Your task to perform on an android device: turn off location history Image 0: 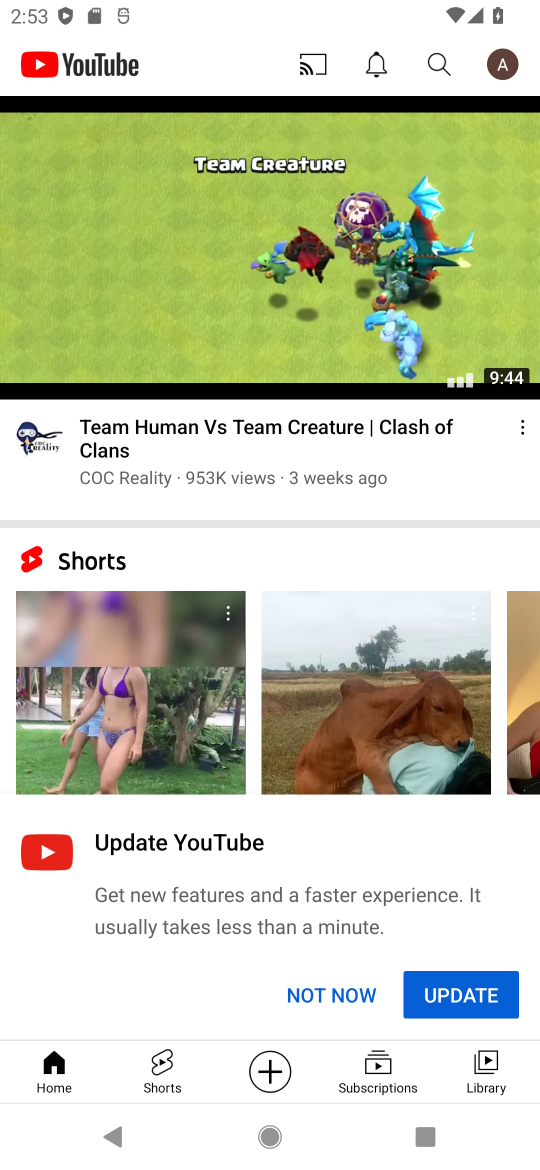
Step 0: press back button
Your task to perform on an android device: turn off location history Image 1: 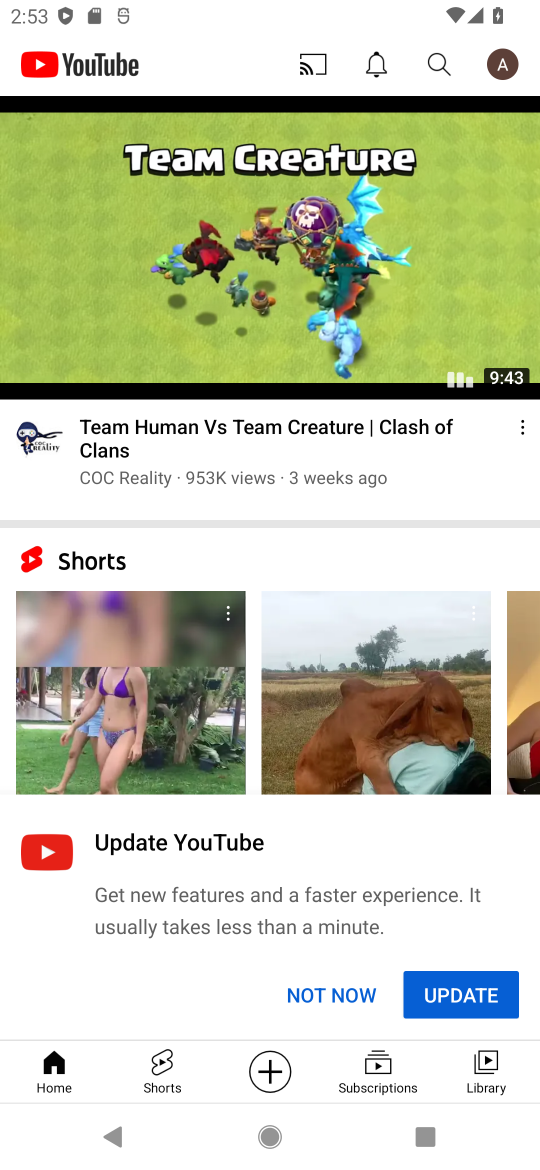
Step 1: press back button
Your task to perform on an android device: turn off location history Image 2: 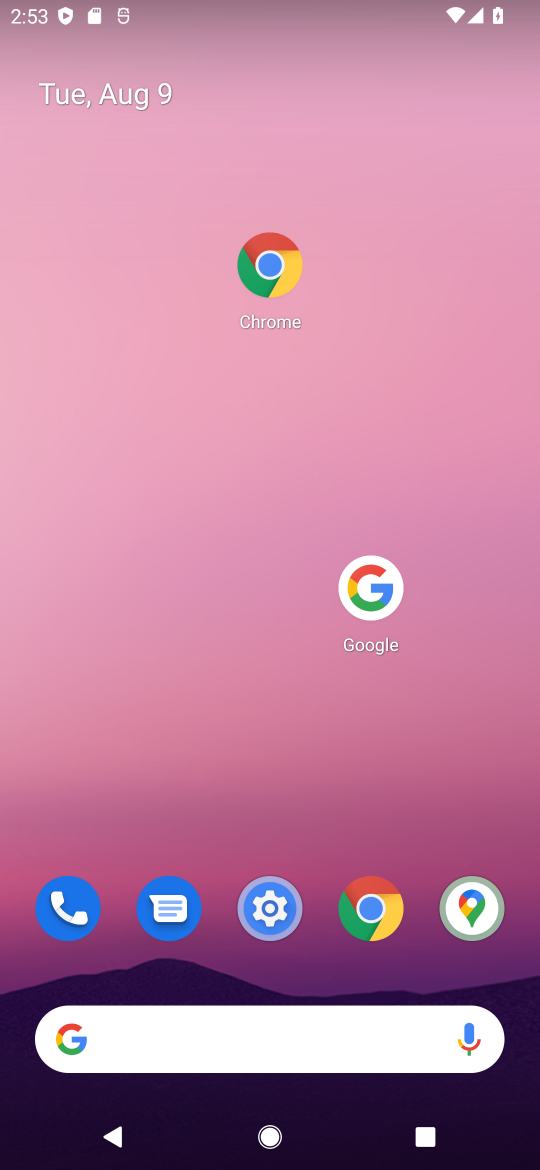
Step 2: press back button
Your task to perform on an android device: turn off location history Image 3: 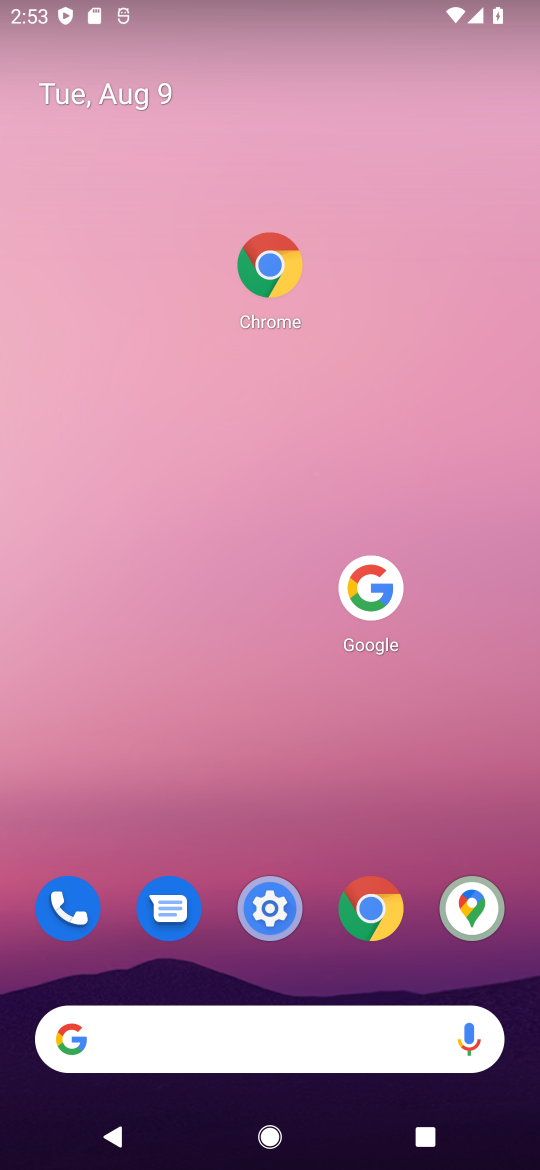
Step 3: drag from (285, 1025) to (152, 170)
Your task to perform on an android device: turn off location history Image 4: 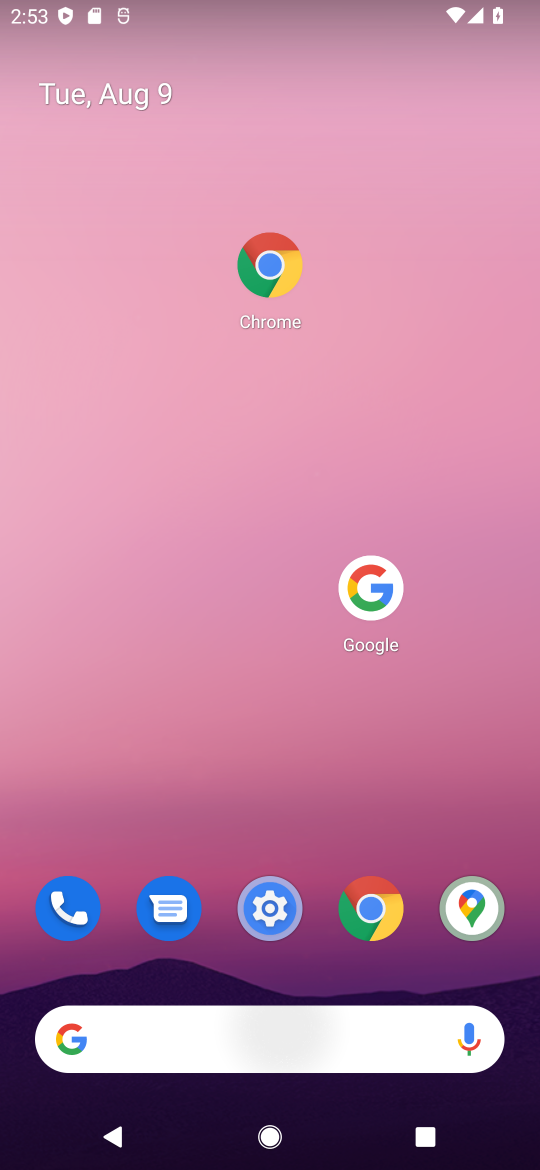
Step 4: click (325, 294)
Your task to perform on an android device: turn off location history Image 5: 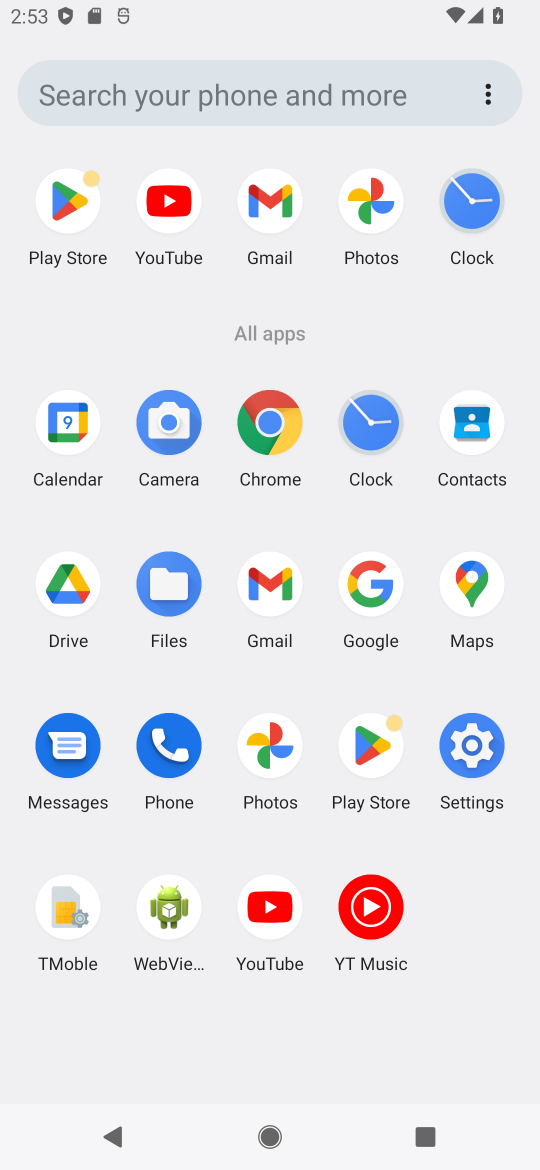
Step 5: click (473, 745)
Your task to perform on an android device: turn off location history Image 6: 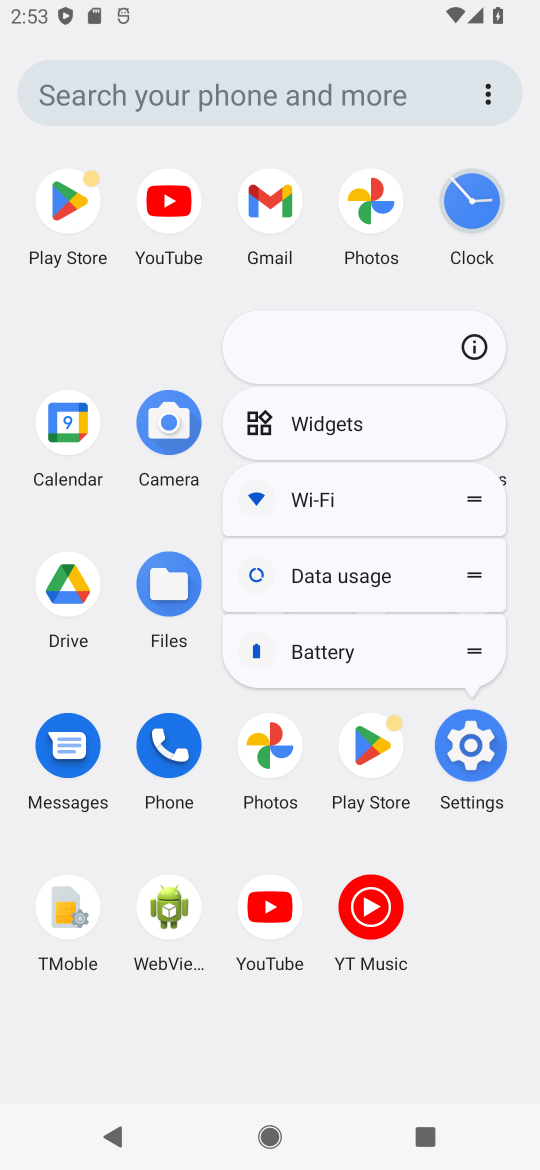
Step 6: click (472, 745)
Your task to perform on an android device: turn off location history Image 7: 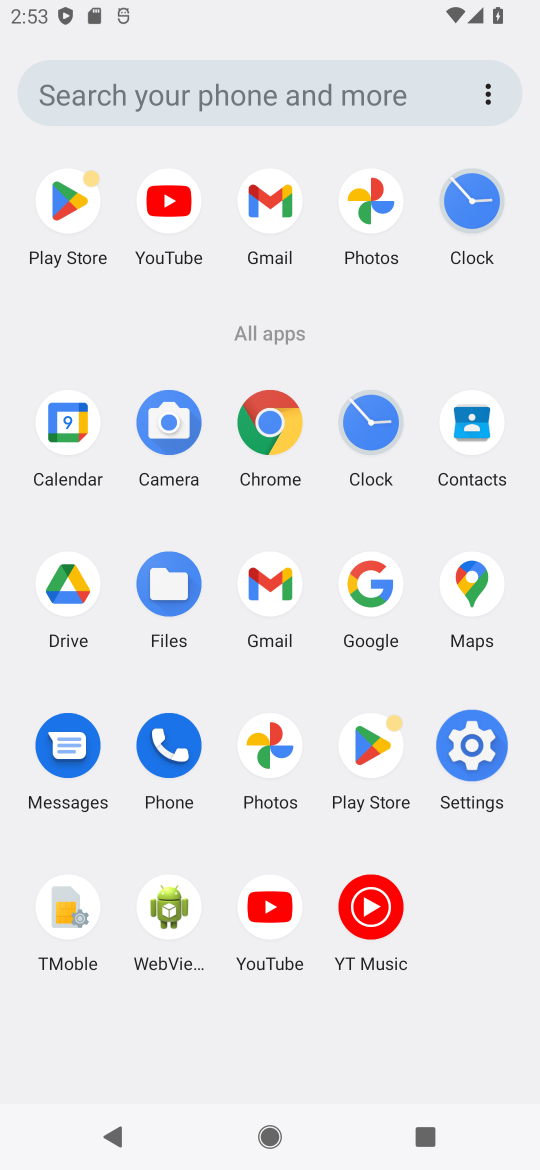
Step 7: click (472, 745)
Your task to perform on an android device: turn off location history Image 8: 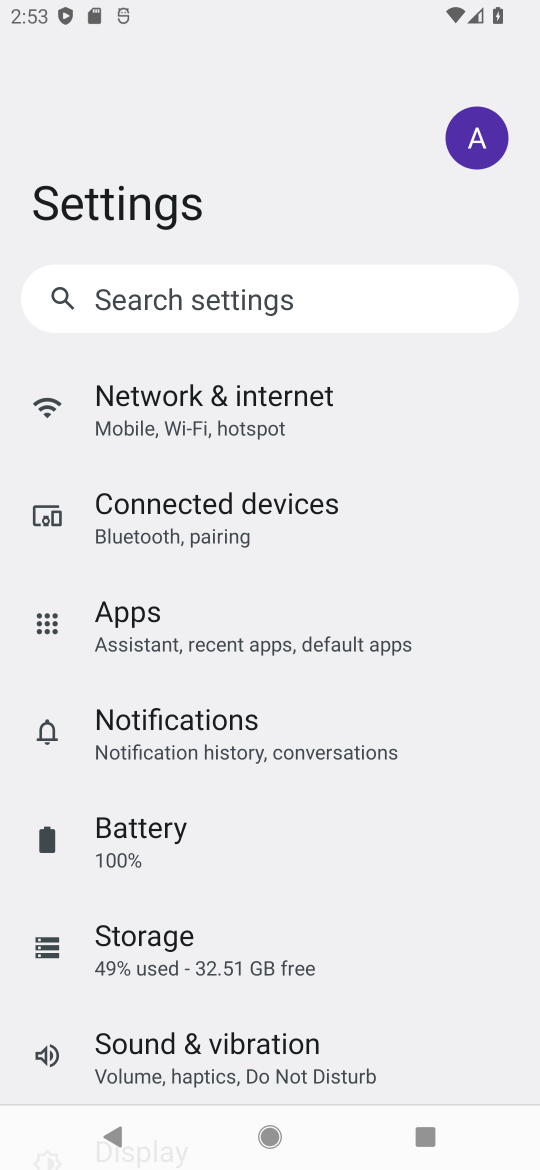
Step 8: drag from (205, 916) to (212, 543)
Your task to perform on an android device: turn off location history Image 9: 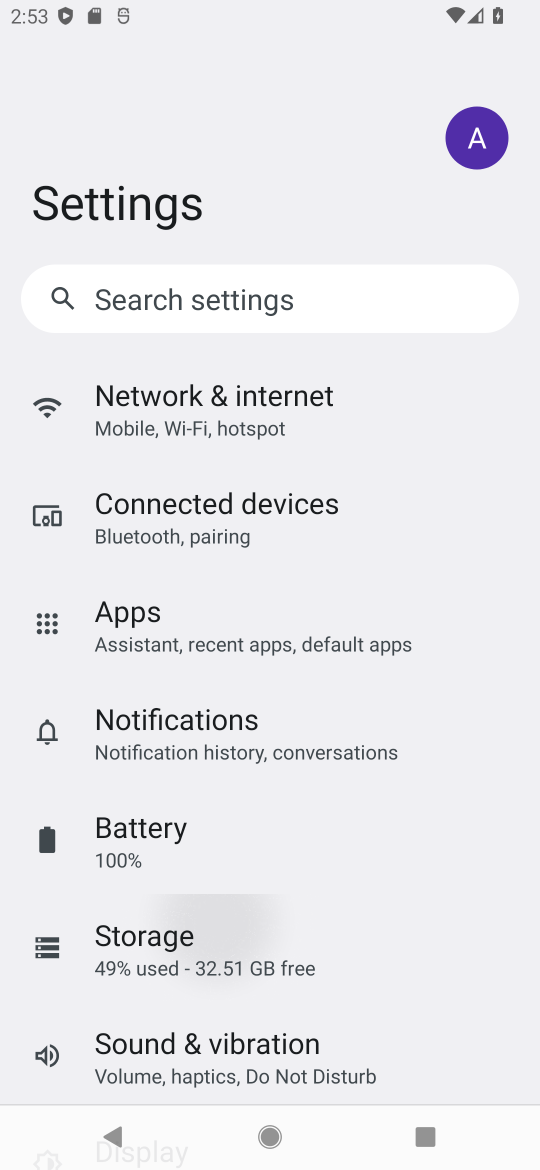
Step 9: drag from (199, 813) to (199, 539)
Your task to perform on an android device: turn off location history Image 10: 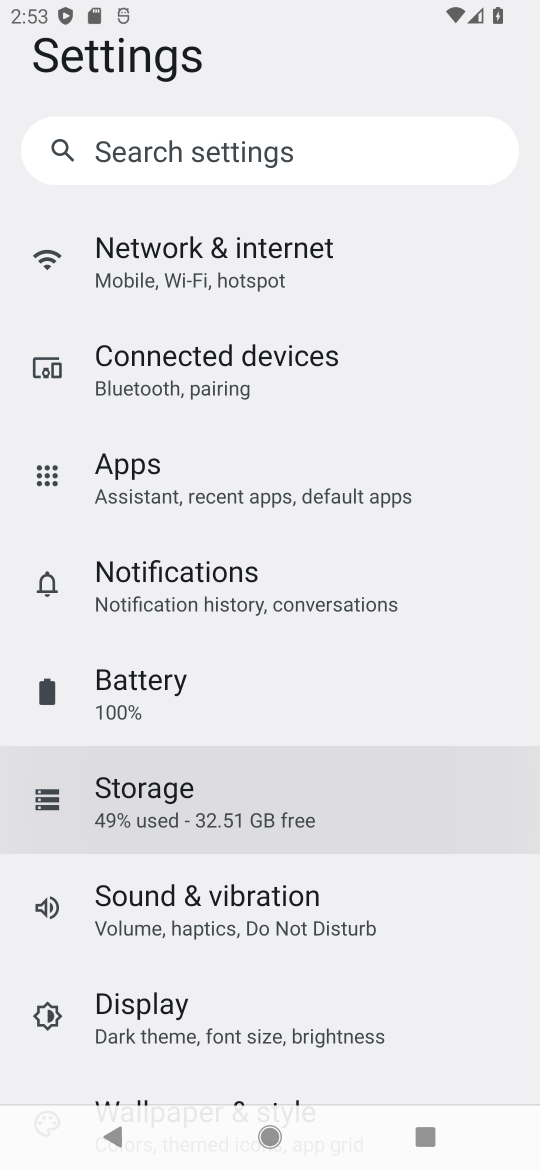
Step 10: drag from (202, 886) to (212, 422)
Your task to perform on an android device: turn off location history Image 11: 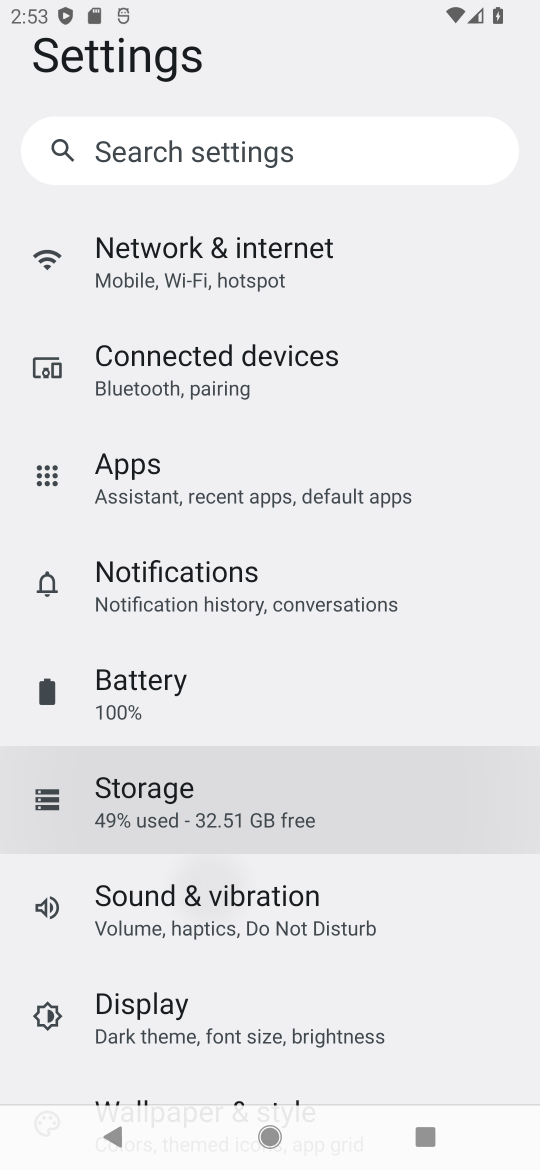
Step 11: drag from (262, 775) to (349, 221)
Your task to perform on an android device: turn off location history Image 12: 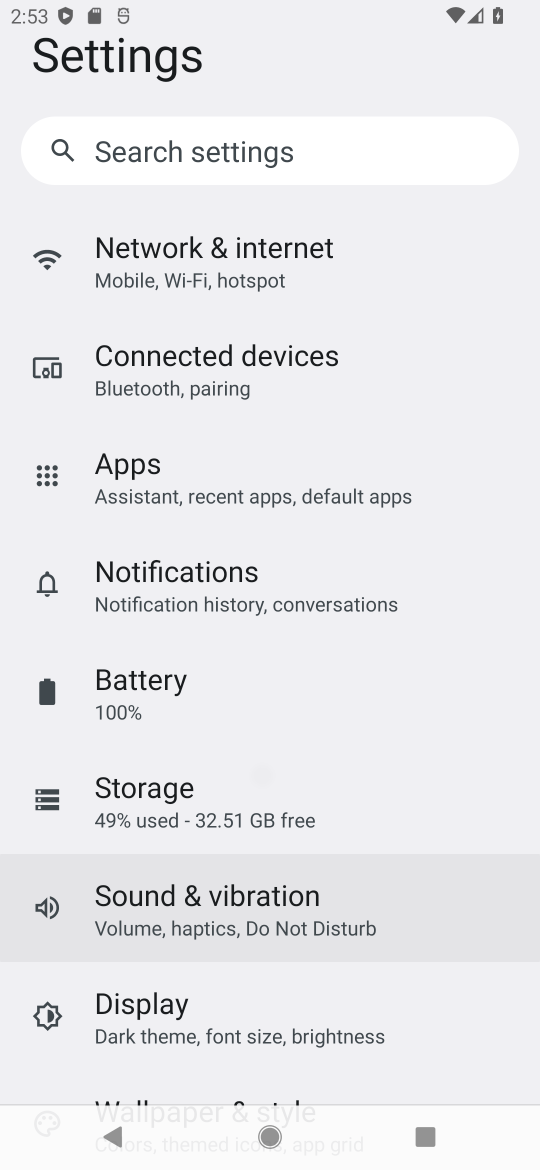
Step 12: drag from (282, 762) to (278, 446)
Your task to perform on an android device: turn off location history Image 13: 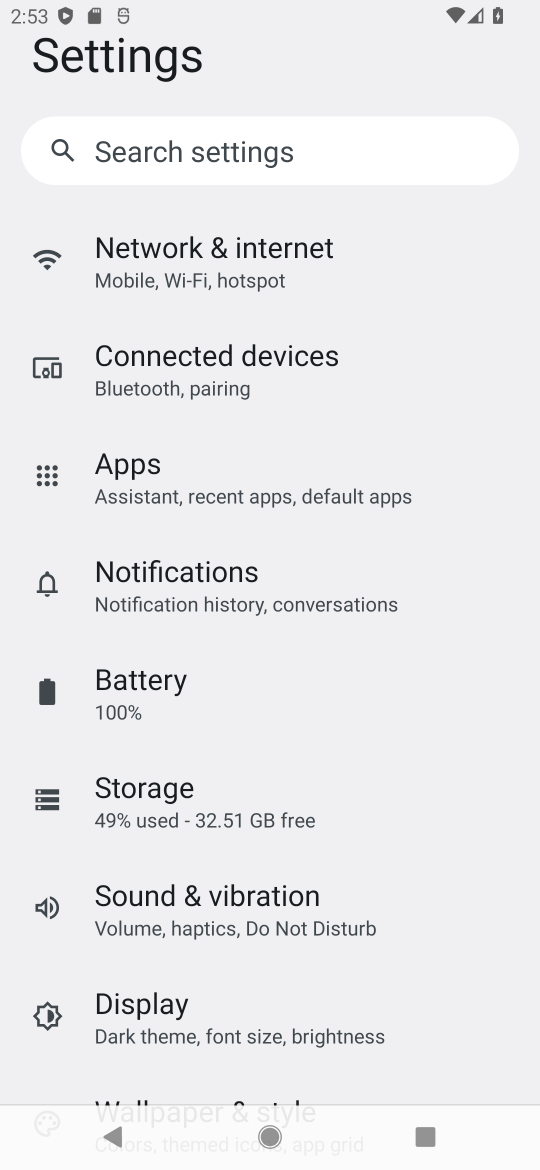
Step 13: drag from (198, 884) to (191, 534)
Your task to perform on an android device: turn off location history Image 14: 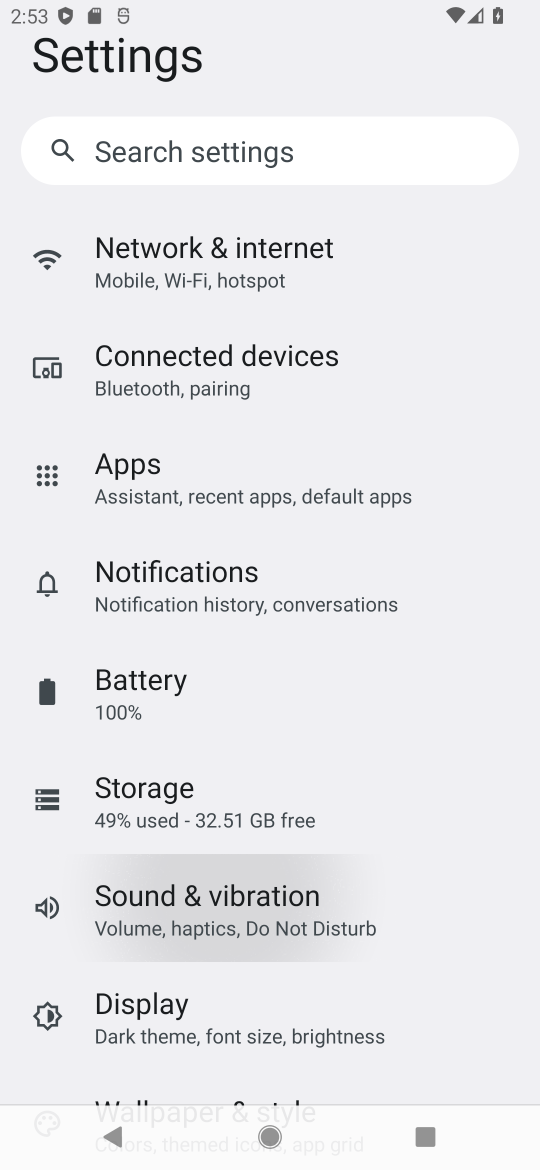
Step 14: click (265, 529)
Your task to perform on an android device: turn off location history Image 15: 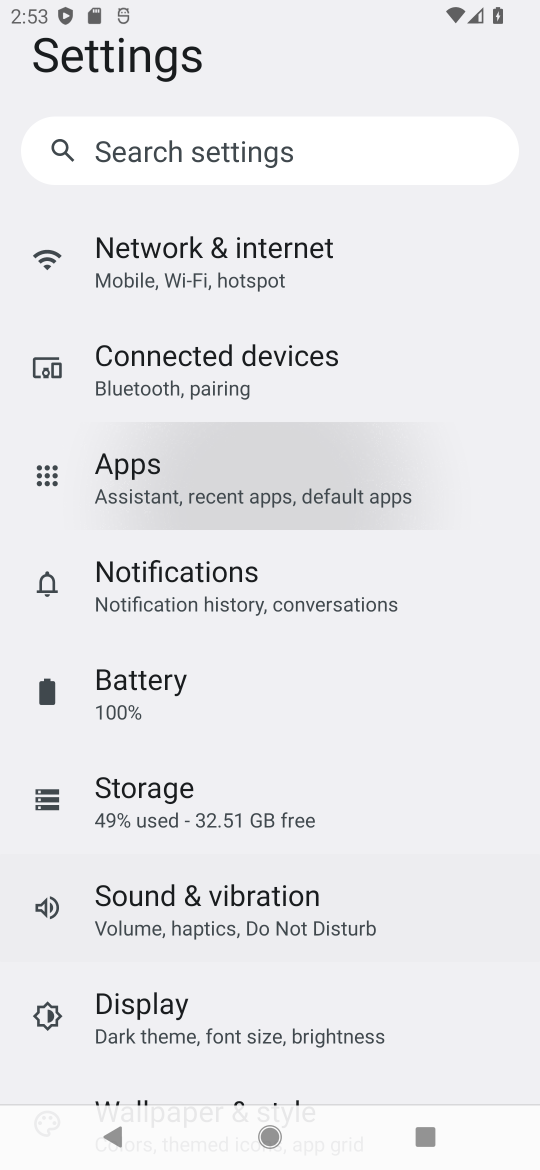
Step 15: drag from (276, 747) to (210, 306)
Your task to perform on an android device: turn off location history Image 16: 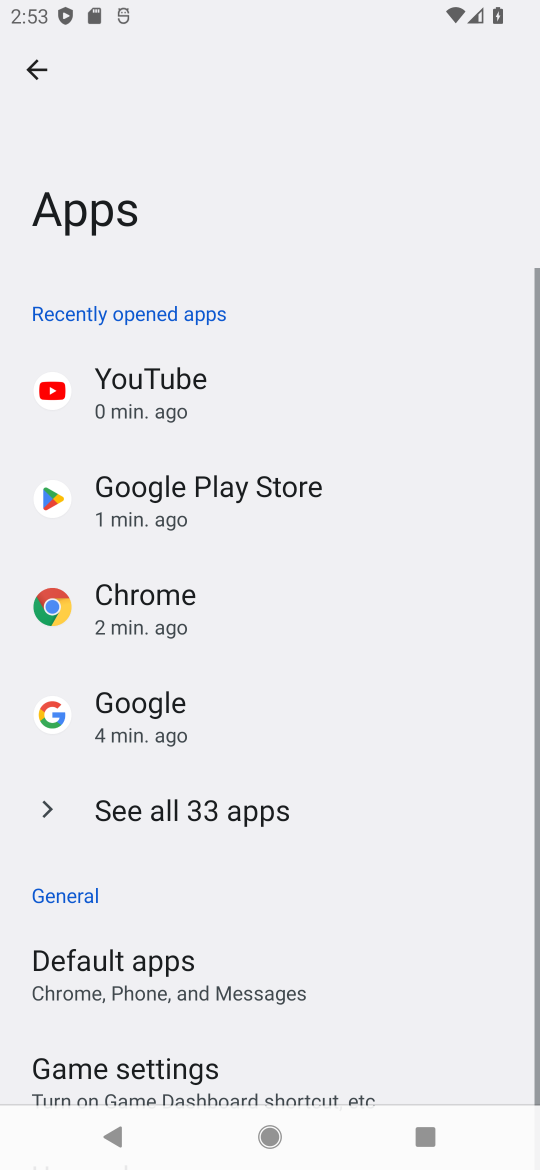
Step 16: click (36, 71)
Your task to perform on an android device: turn off location history Image 17: 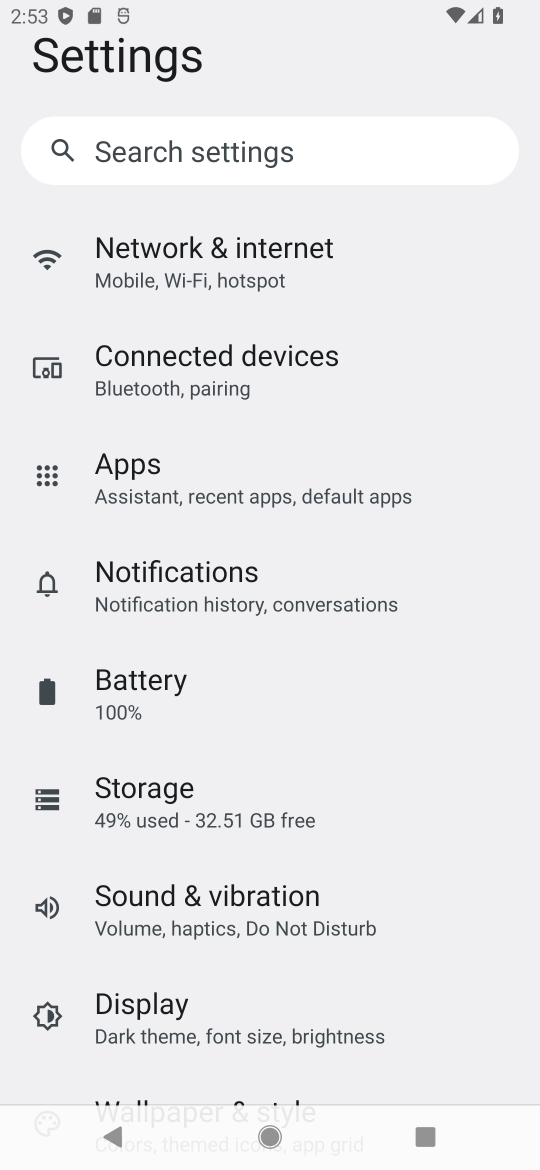
Step 17: drag from (181, 663) to (143, 168)
Your task to perform on an android device: turn off location history Image 18: 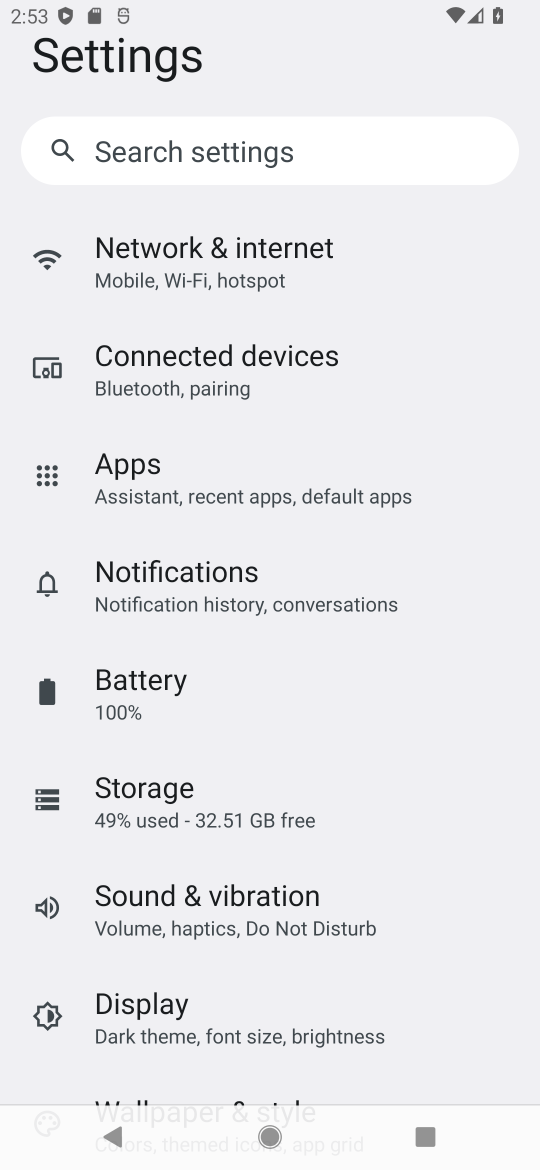
Step 18: drag from (177, 806) to (192, 281)
Your task to perform on an android device: turn off location history Image 19: 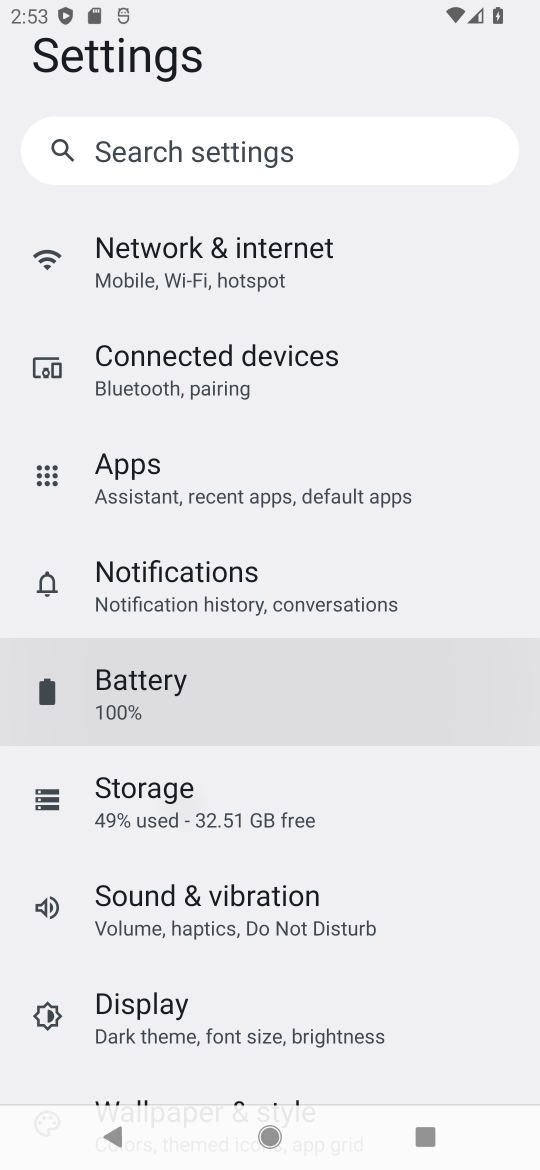
Step 19: drag from (288, 830) to (280, 373)
Your task to perform on an android device: turn off location history Image 20: 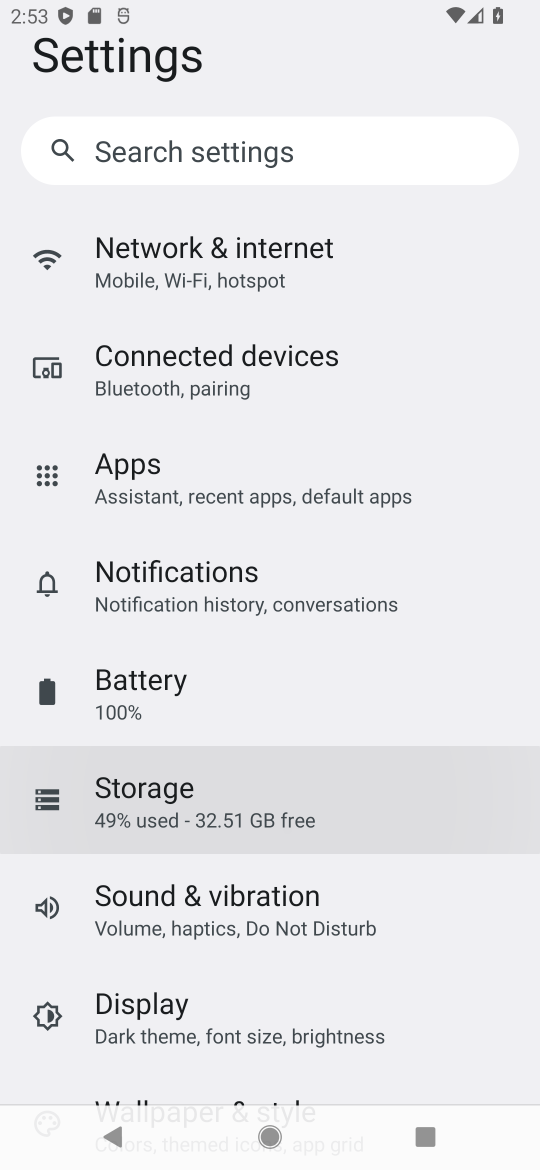
Step 20: drag from (237, 930) to (200, 465)
Your task to perform on an android device: turn off location history Image 21: 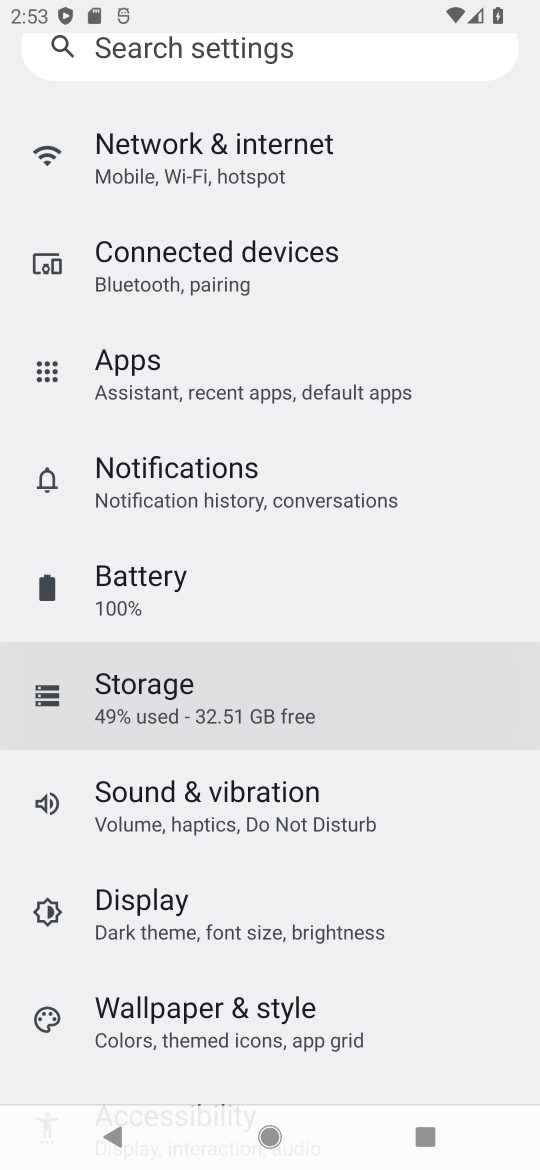
Step 21: drag from (217, 897) to (229, 258)
Your task to perform on an android device: turn off location history Image 22: 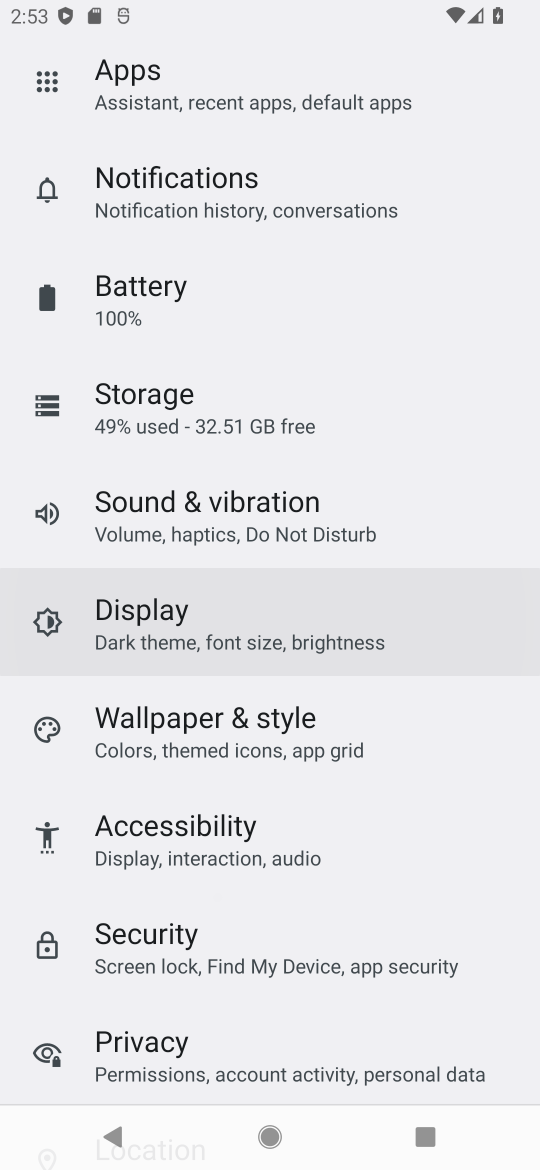
Step 22: drag from (206, 916) to (156, 548)
Your task to perform on an android device: turn off location history Image 23: 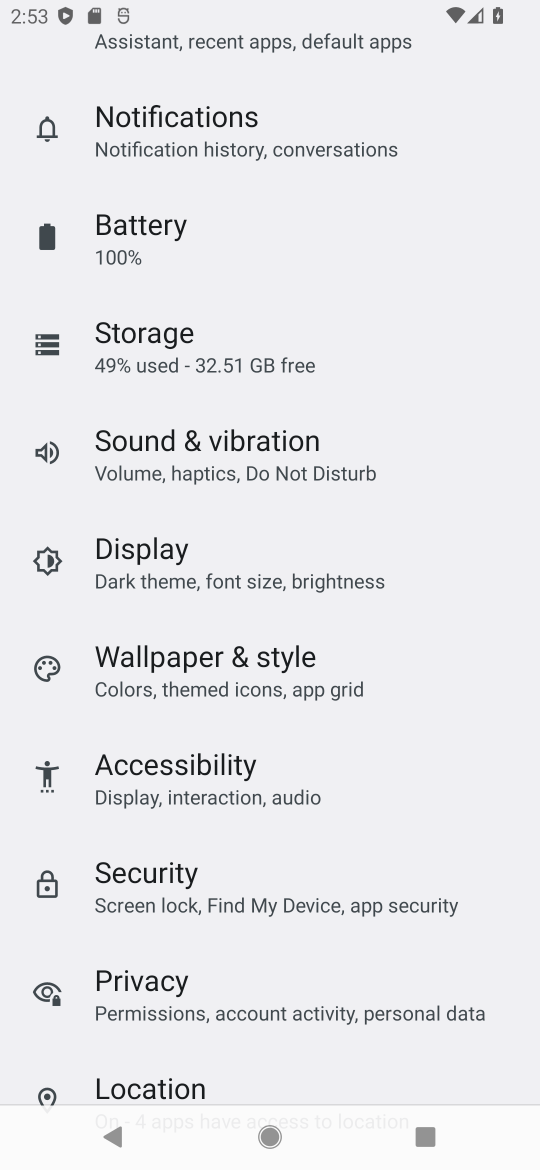
Step 23: click (171, 148)
Your task to perform on an android device: turn off location history Image 24: 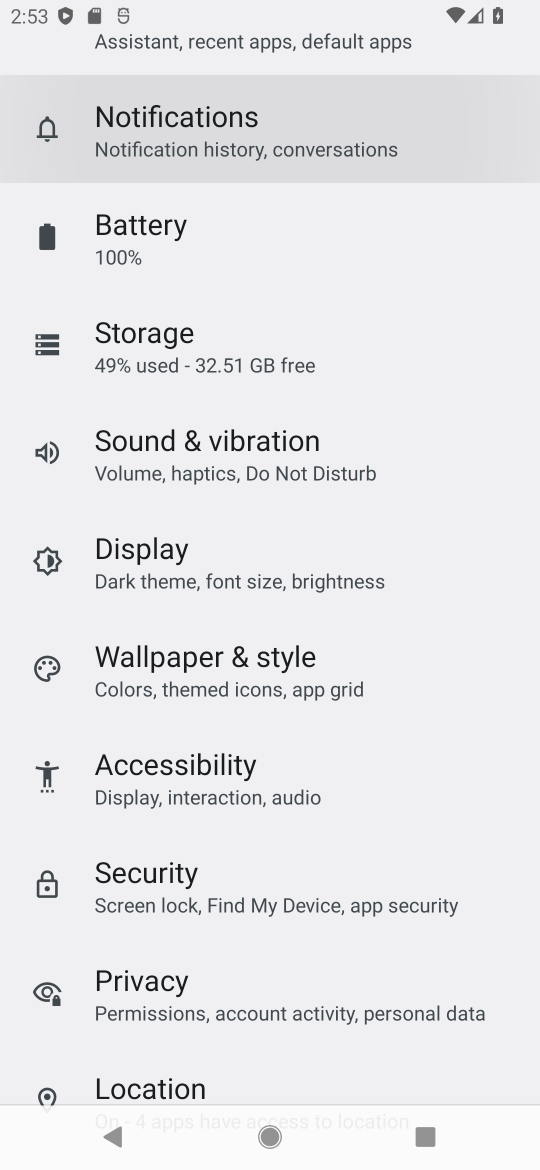
Step 24: click (171, 148)
Your task to perform on an android device: turn off location history Image 25: 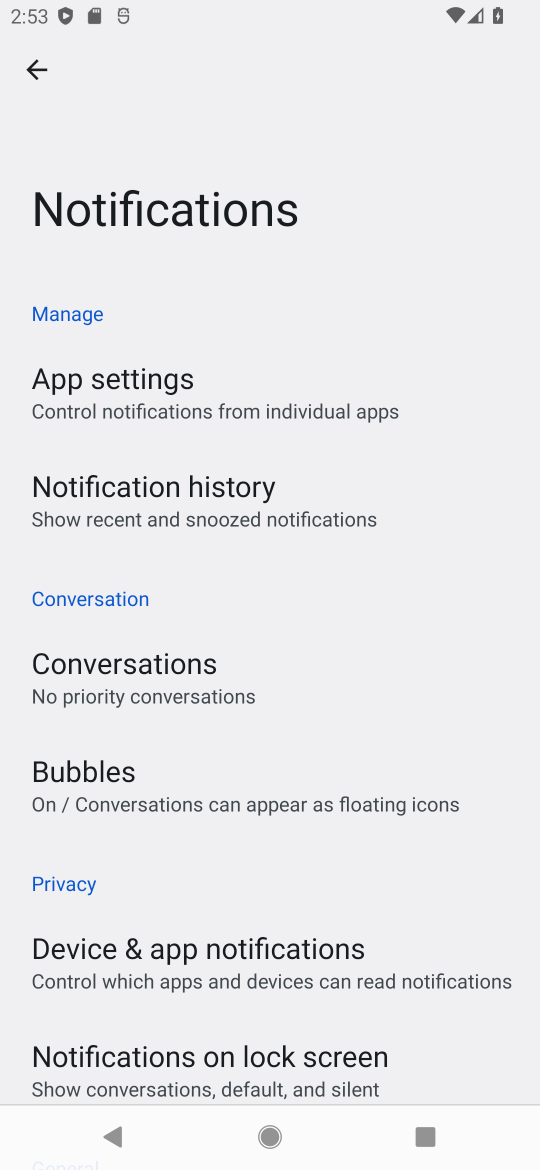
Step 25: click (153, 485)
Your task to perform on an android device: turn off location history Image 26: 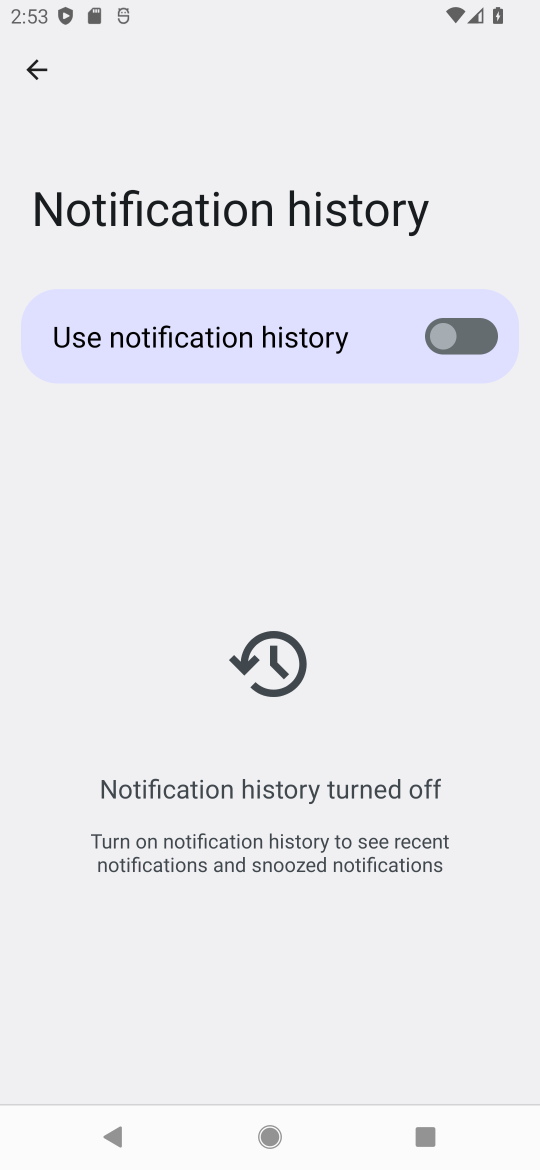
Step 26: click (34, 71)
Your task to perform on an android device: turn off location history Image 27: 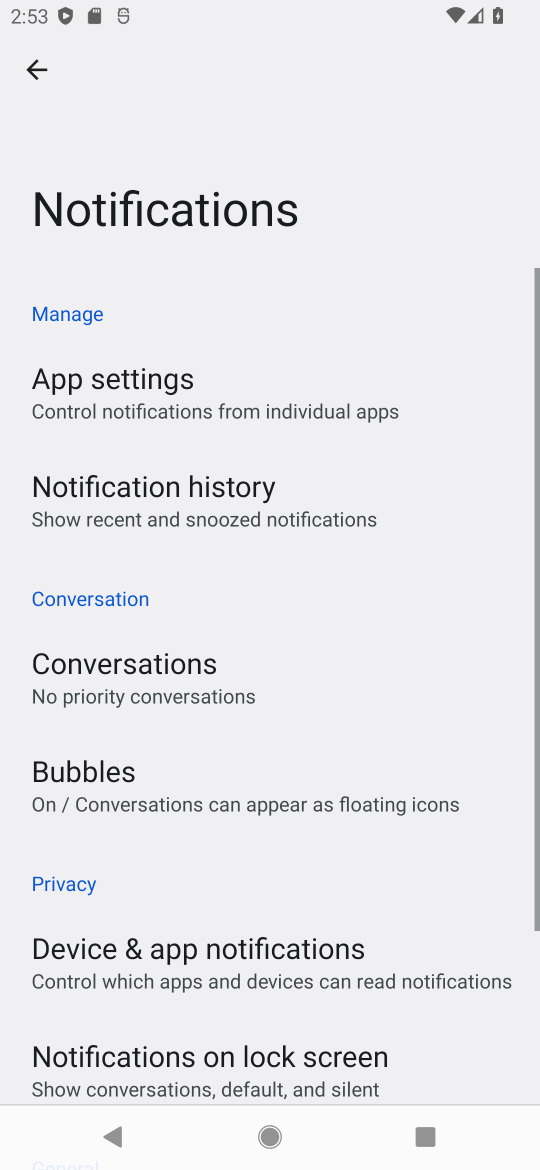
Step 27: click (34, 71)
Your task to perform on an android device: turn off location history Image 28: 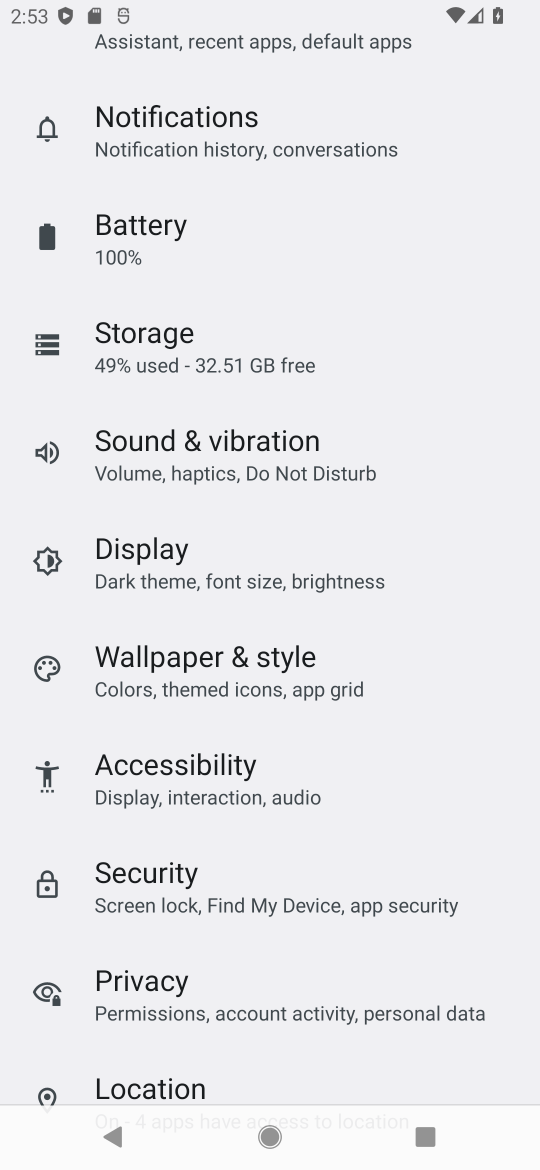
Step 28: drag from (188, 1047) to (222, 217)
Your task to perform on an android device: turn off location history Image 29: 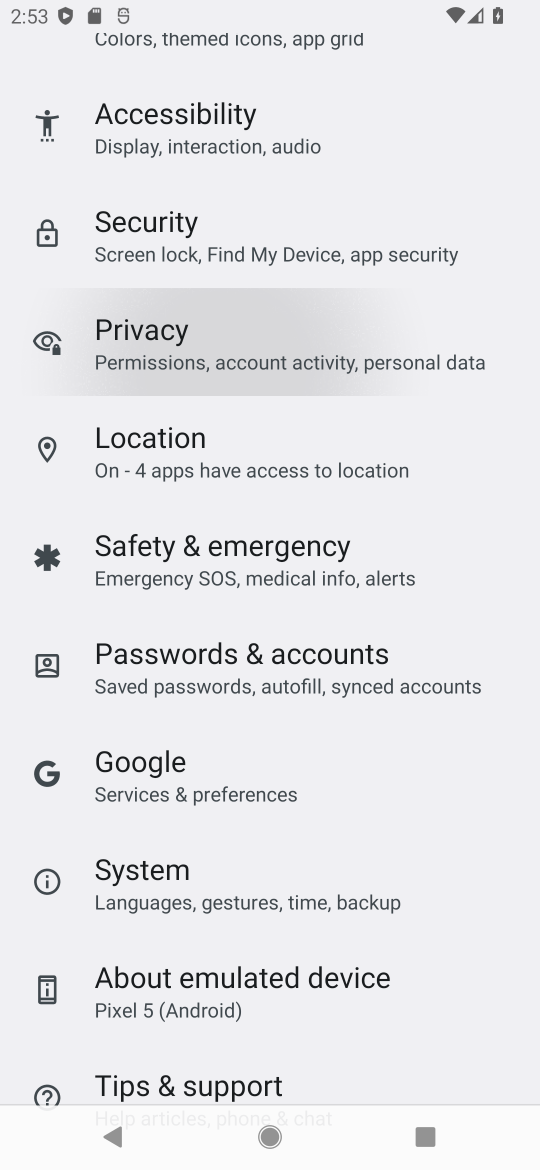
Step 29: drag from (268, 574) to (273, 382)
Your task to perform on an android device: turn off location history Image 30: 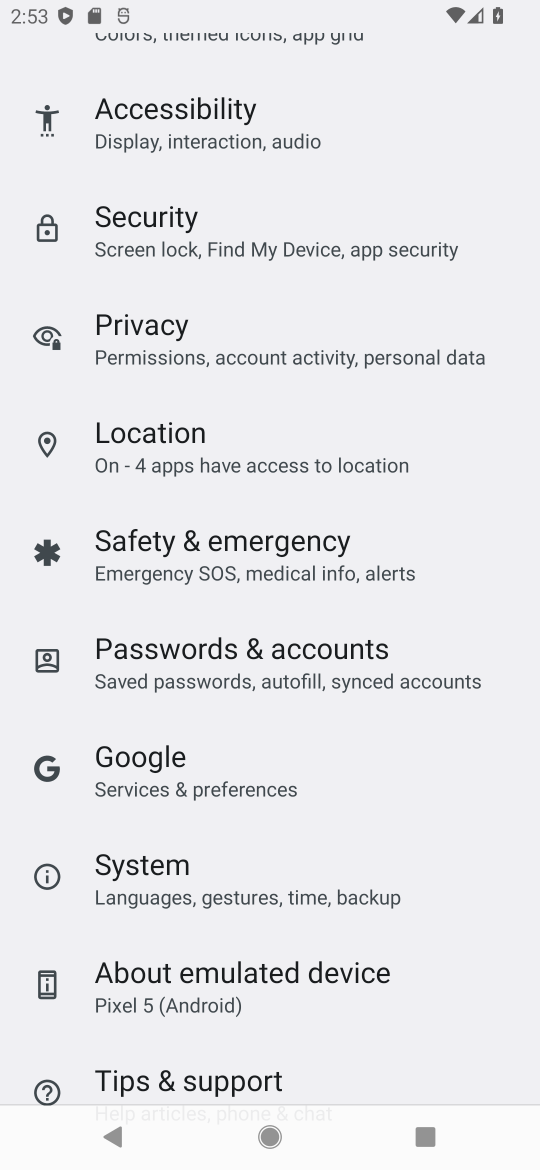
Step 30: click (143, 441)
Your task to perform on an android device: turn off location history Image 31: 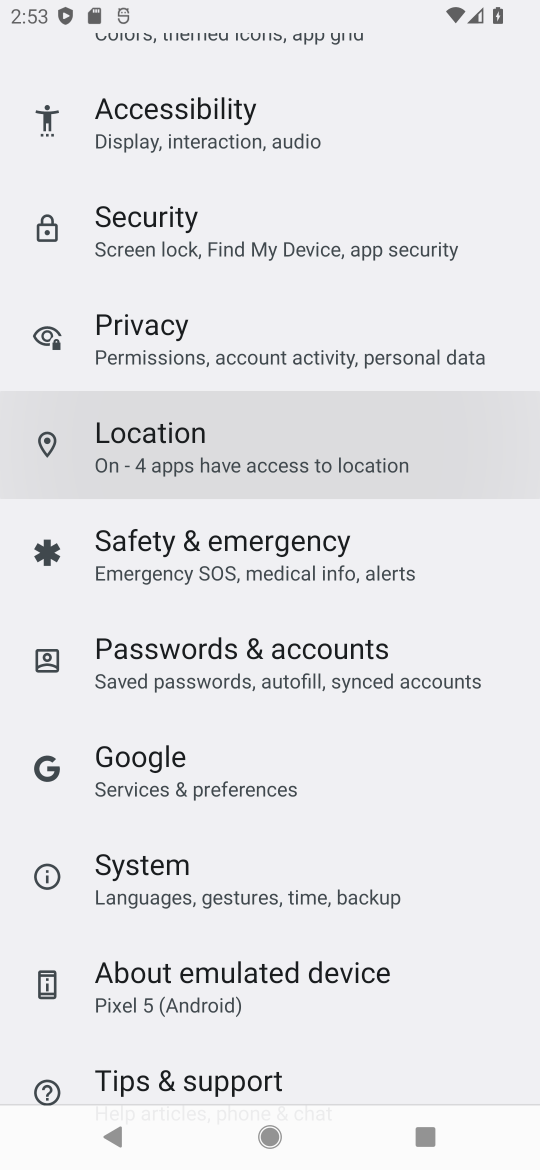
Step 31: click (154, 438)
Your task to perform on an android device: turn off location history Image 32: 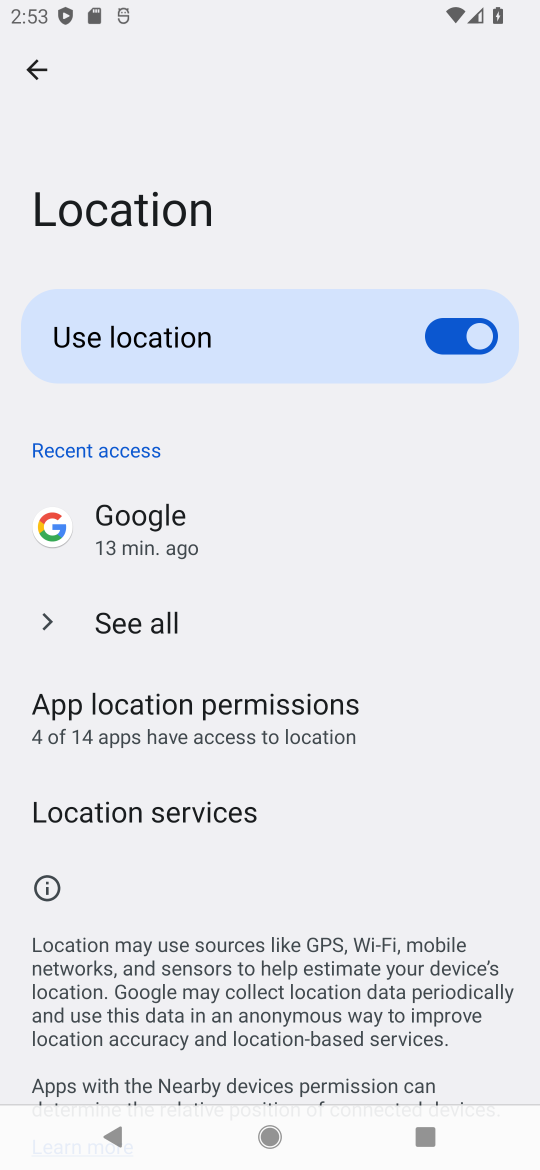
Step 32: click (131, 807)
Your task to perform on an android device: turn off location history Image 33: 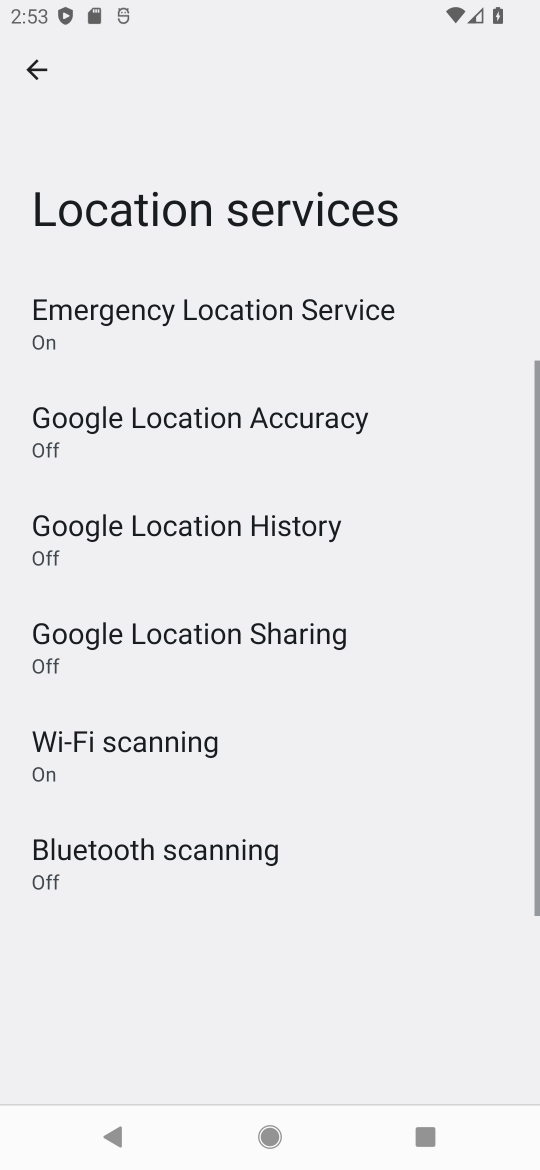
Step 33: click (259, 531)
Your task to perform on an android device: turn off location history Image 34: 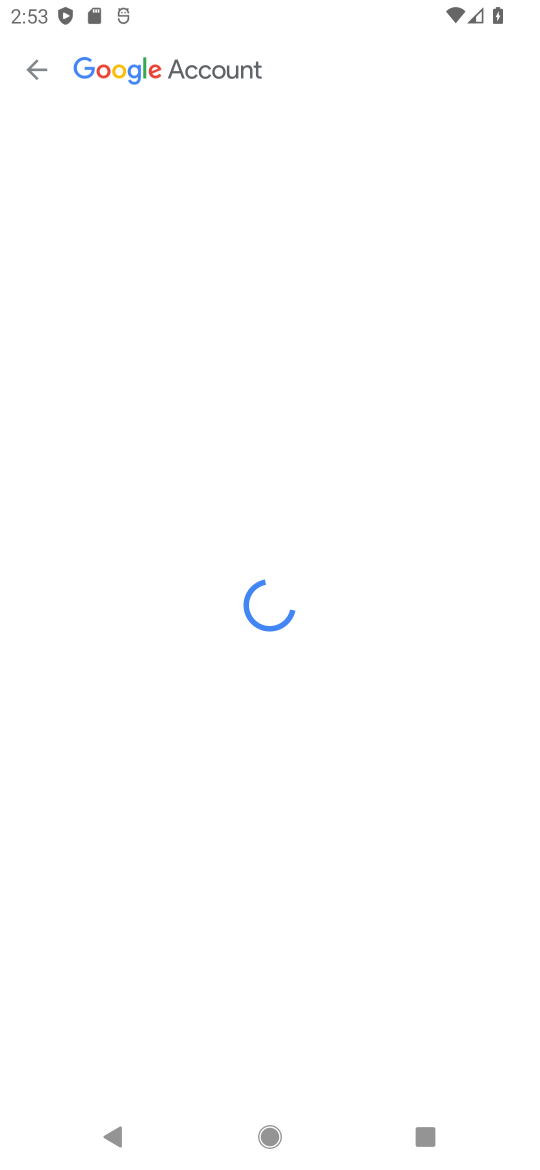
Step 34: task complete